Your task to perform on an android device: Search for "usb-b" on amazon, select the first entry, and add it to the cart. Image 0: 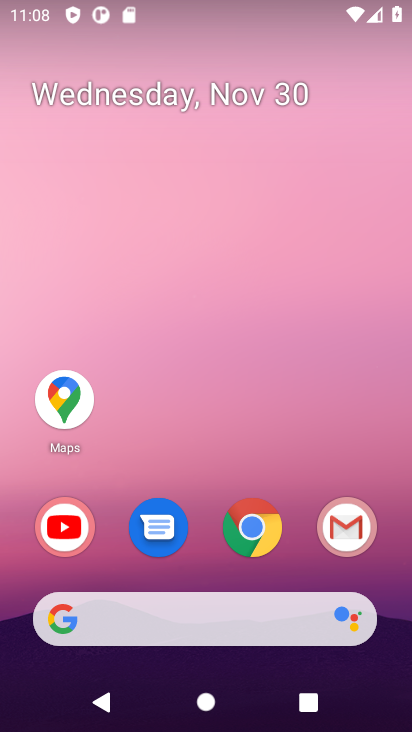
Step 0: click (258, 535)
Your task to perform on an android device: Search for "usb-b" on amazon, select the first entry, and add it to the cart. Image 1: 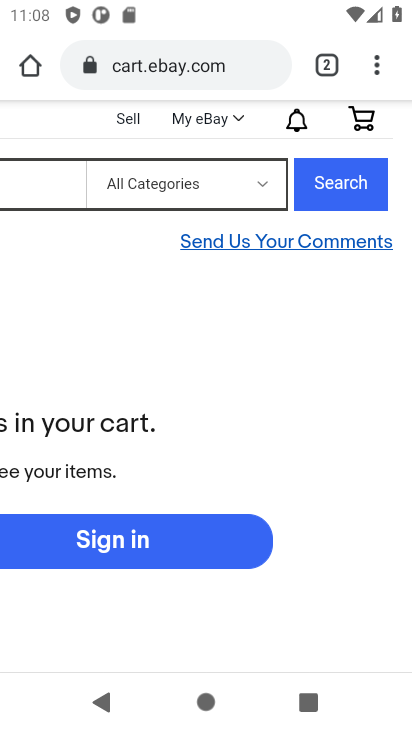
Step 1: click (167, 66)
Your task to perform on an android device: Search for "usb-b" on amazon, select the first entry, and add it to the cart. Image 2: 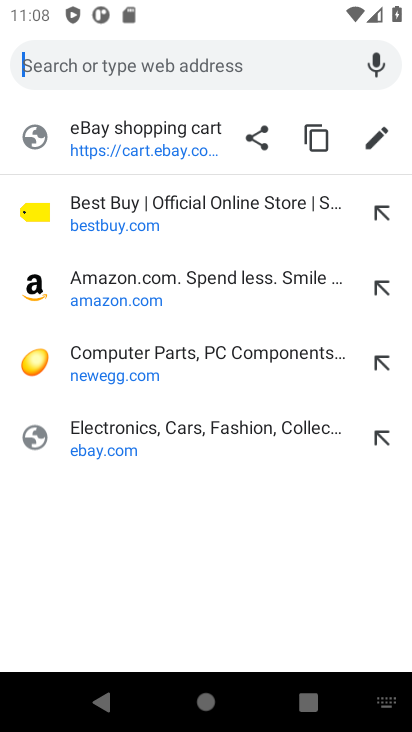
Step 2: click (85, 296)
Your task to perform on an android device: Search for "usb-b" on amazon, select the first entry, and add it to the cart. Image 3: 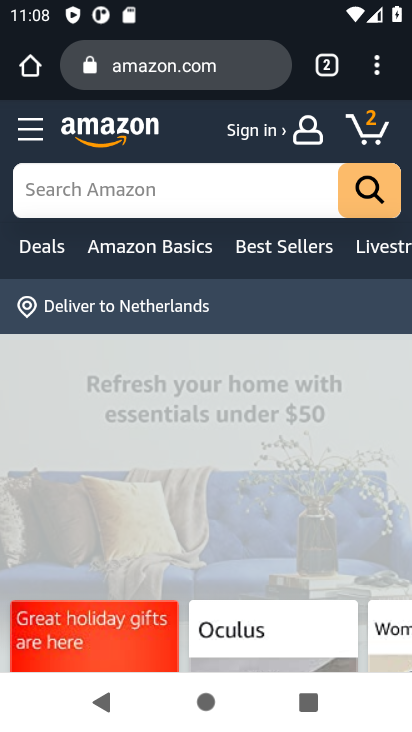
Step 3: click (77, 197)
Your task to perform on an android device: Search for "usb-b" on amazon, select the first entry, and add it to the cart. Image 4: 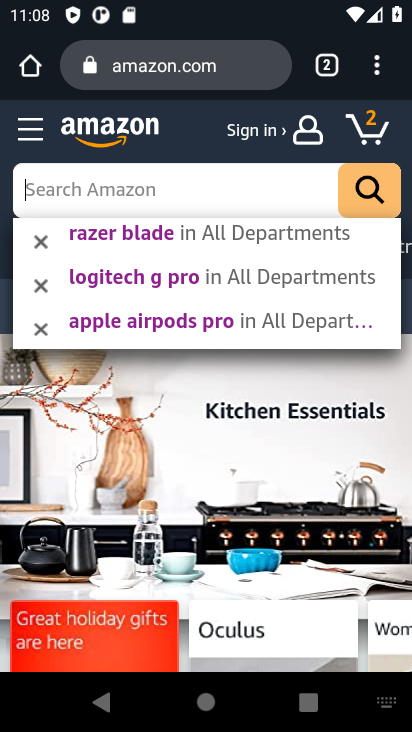
Step 4: type "usb-b"
Your task to perform on an android device: Search for "usb-b" on amazon, select the first entry, and add it to the cart. Image 5: 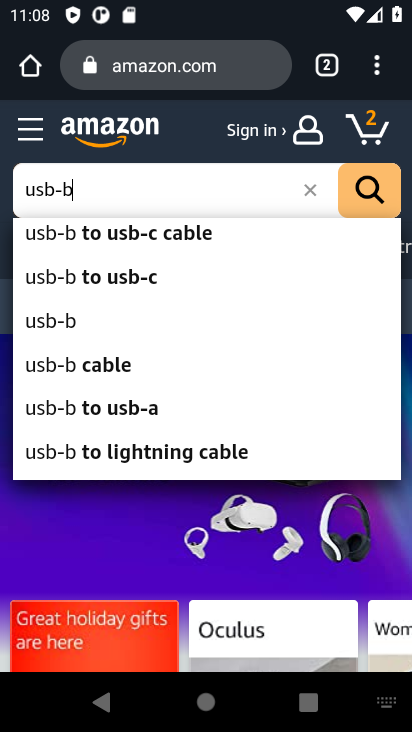
Step 5: click (54, 325)
Your task to perform on an android device: Search for "usb-b" on amazon, select the first entry, and add it to the cart. Image 6: 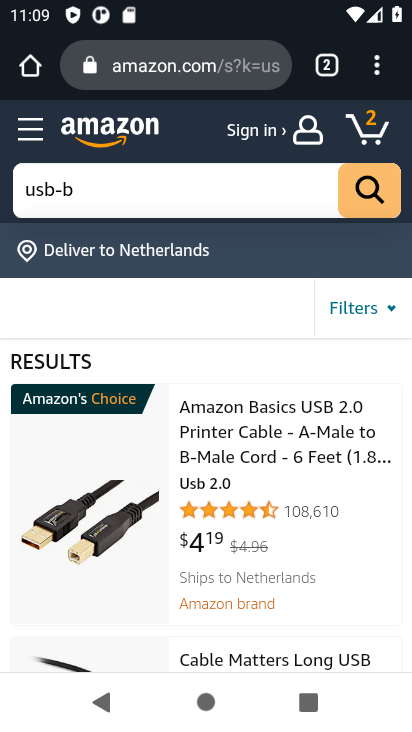
Step 6: click (326, 489)
Your task to perform on an android device: Search for "usb-b" on amazon, select the first entry, and add it to the cart. Image 7: 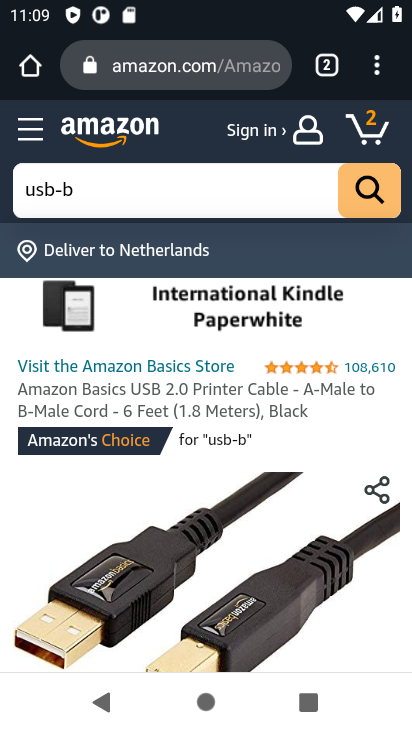
Step 7: drag from (230, 621) to (212, 377)
Your task to perform on an android device: Search for "usb-b" on amazon, select the first entry, and add it to the cart. Image 8: 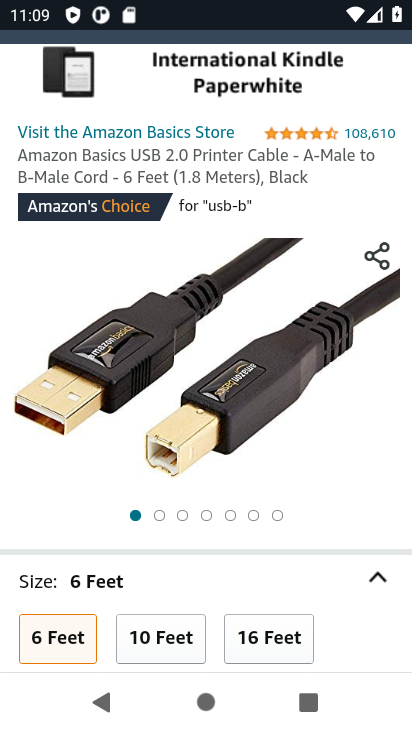
Step 8: drag from (185, 543) to (176, 314)
Your task to perform on an android device: Search for "usb-b" on amazon, select the first entry, and add it to the cart. Image 9: 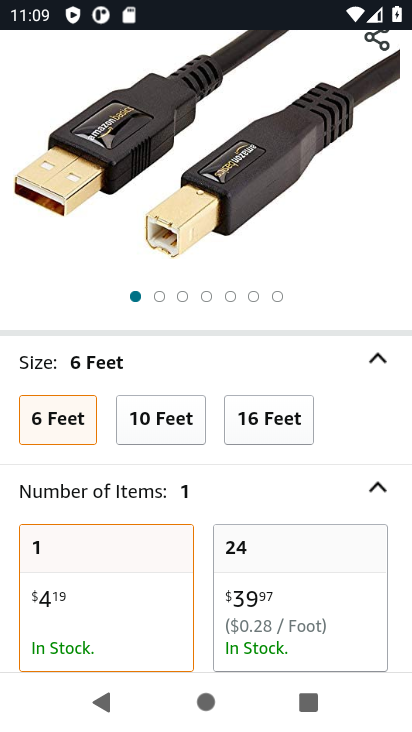
Step 9: drag from (183, 522) to (176, 271)
Your task to perform on an android device: Search for "usb-b" on amazon, select the first entry, and add it to the cart. Image 10: 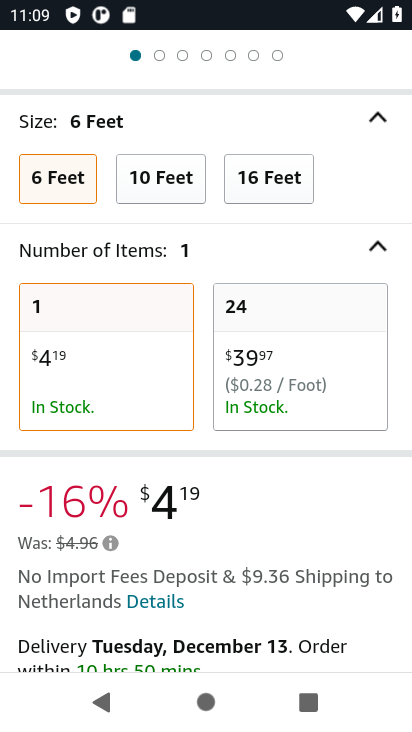
Step 10: drag from (222, 561) to (213, 286)
Your task to perform on an android device: Search for "usb-b" on amazon, select the first entry, and add it to the cart. Image 11: 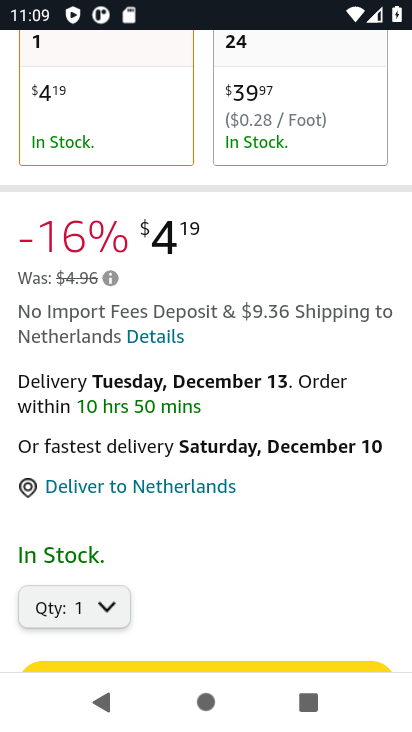
Step 11: drag from (199, 511) to (193, 301)
Your task to perform on an android device: Search for "usb-b" on amazon, select the first entry, and add it to the cart. Image 12: 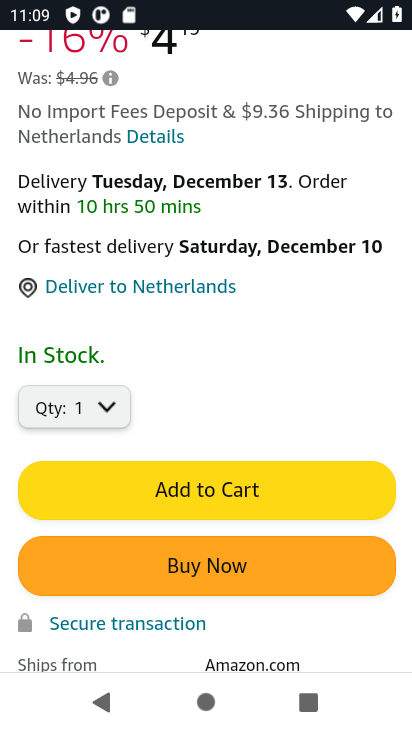
Step 12: click (189, 488)
Your task to perform on an android device: Search for "usb-b" on amazon, select the first entry, and add it to the cart. Image 13: 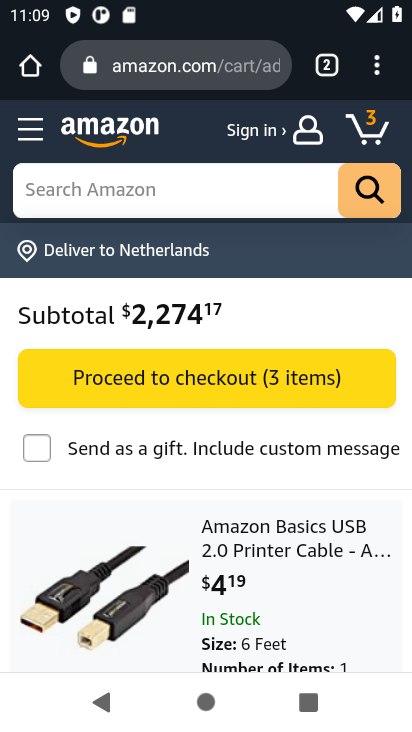
Step 13: task complete